Your task to perform on an android device: turn on notifications settings in the gmail app Image 0: 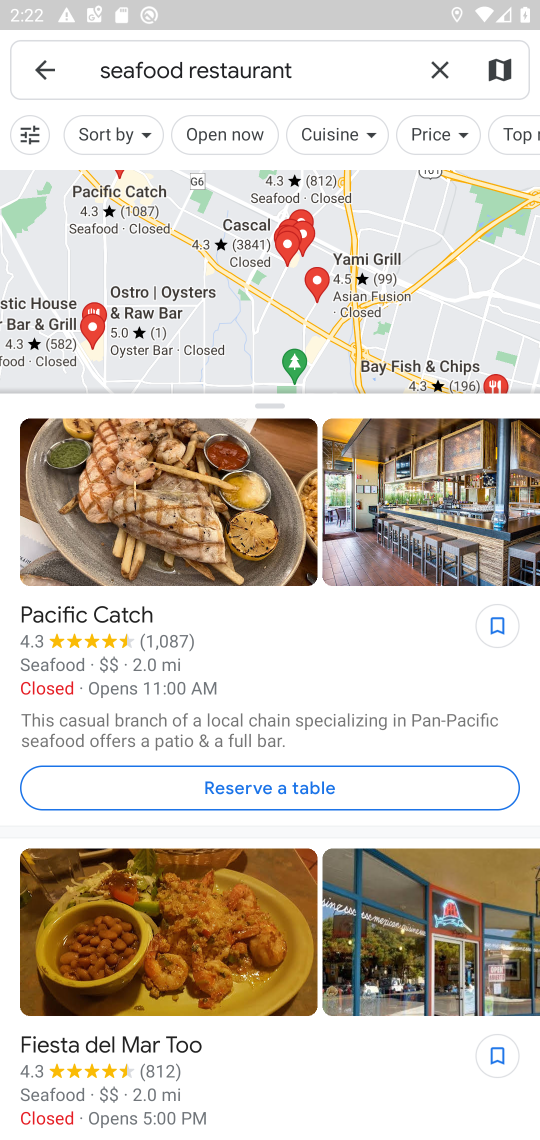
Step 0: press home button
Your task to perform on an android device: turn on notifications settings in the gmail app Image 1: 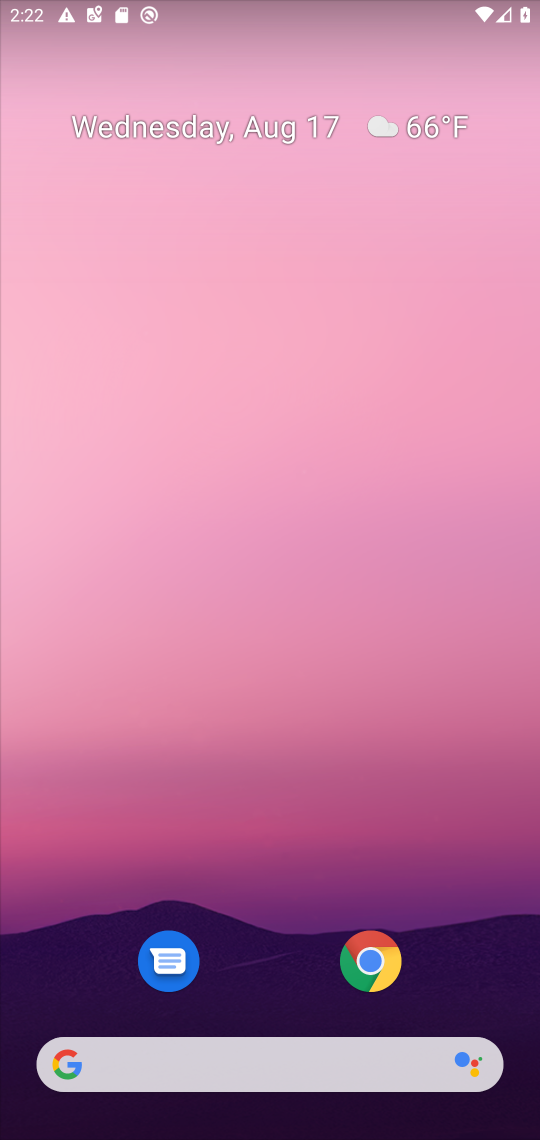
Step 1: drag from (320, 1038) to (357, 249)
Your task to perform on an android device: turn on notifications settings in the gmail app Image 2: 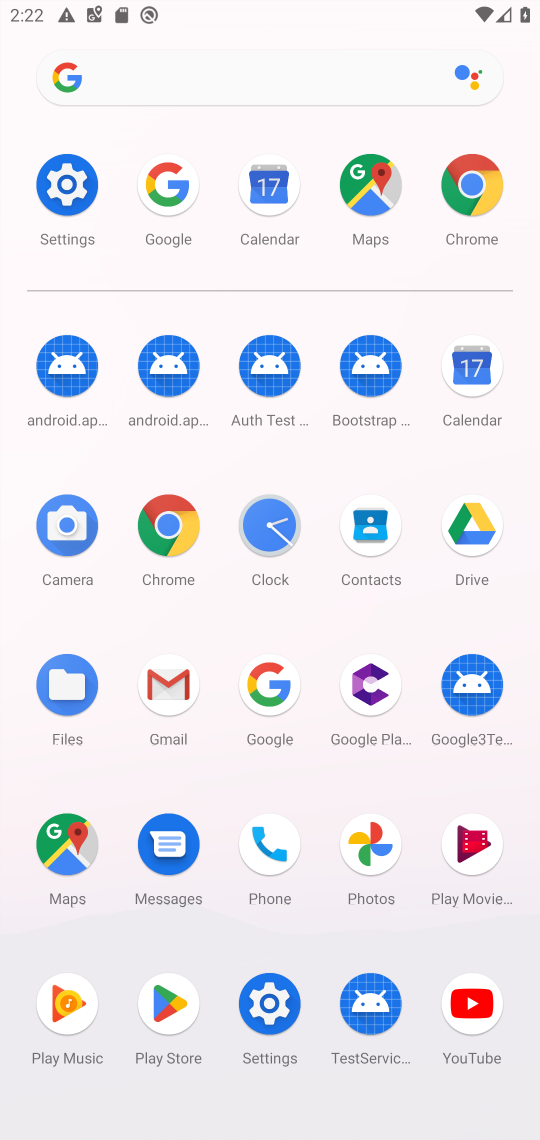
Step 2: click (263, 999)
Your task to perform on an android device: turn on notifications settings in the gmail app Image 3: 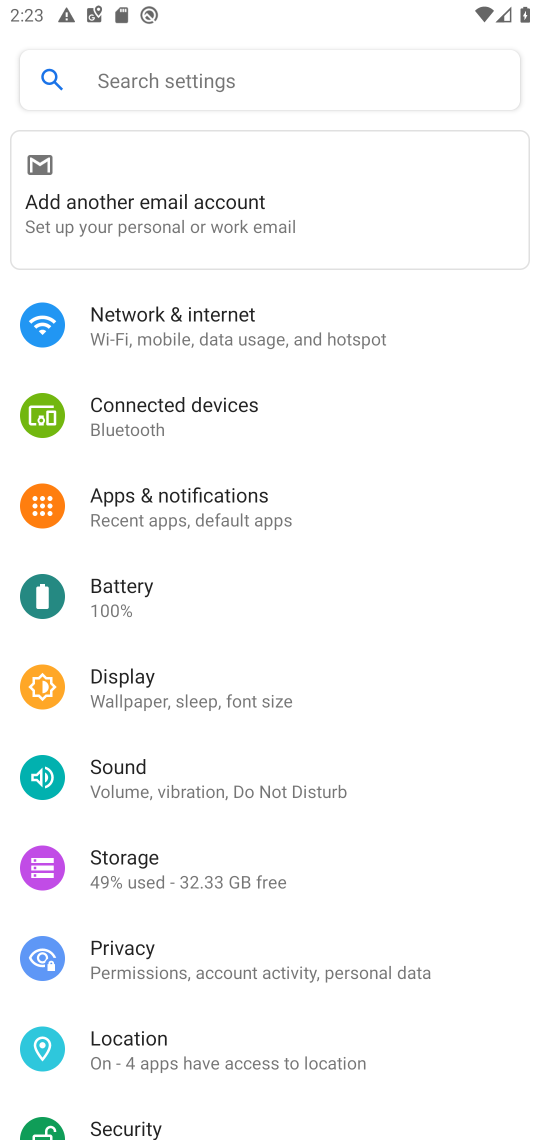
Step 3: click (213, 498)
Your task to perform on an android device: turn on notifications settings in the gmail app Image 4: 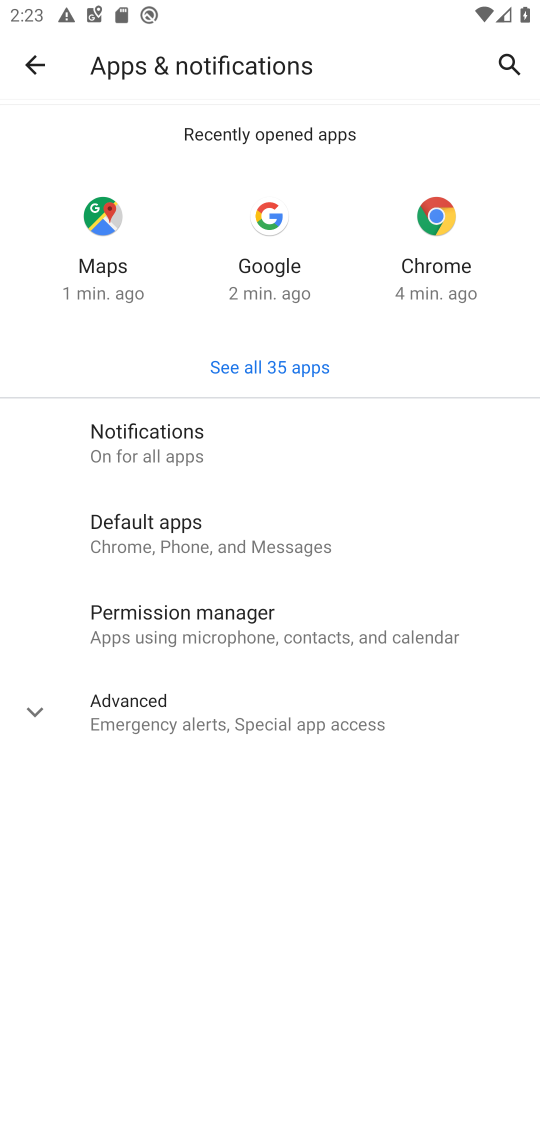
Step 4: click (271, 440)
Your task to perform on an android device: turn on notifications settings in the gmail app Image 5: 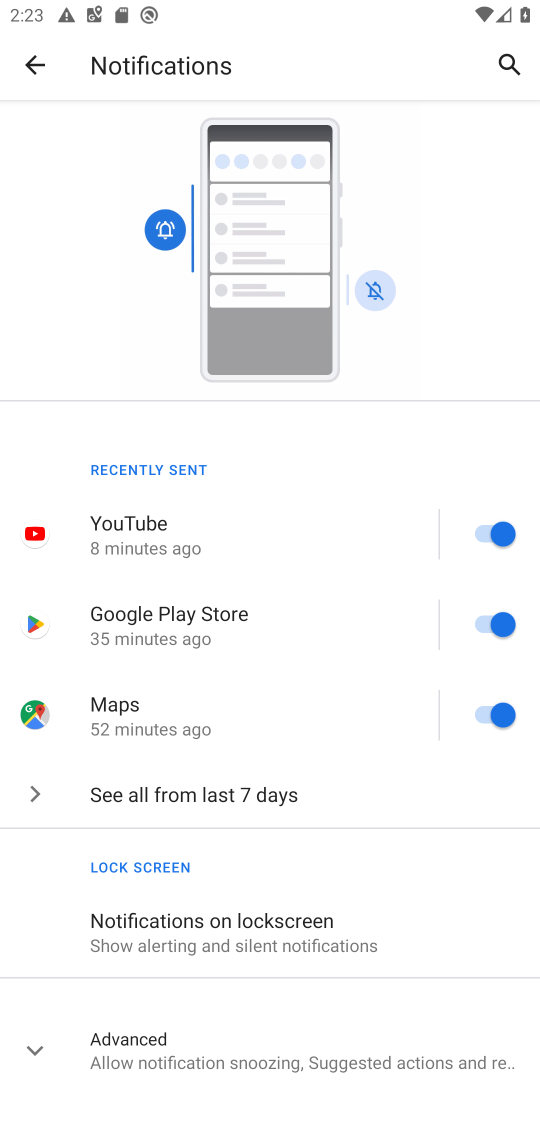
Step 5: click (284, 918)
Your task to perform on an android device: turn on notifications settings in the gmail app Image 6: 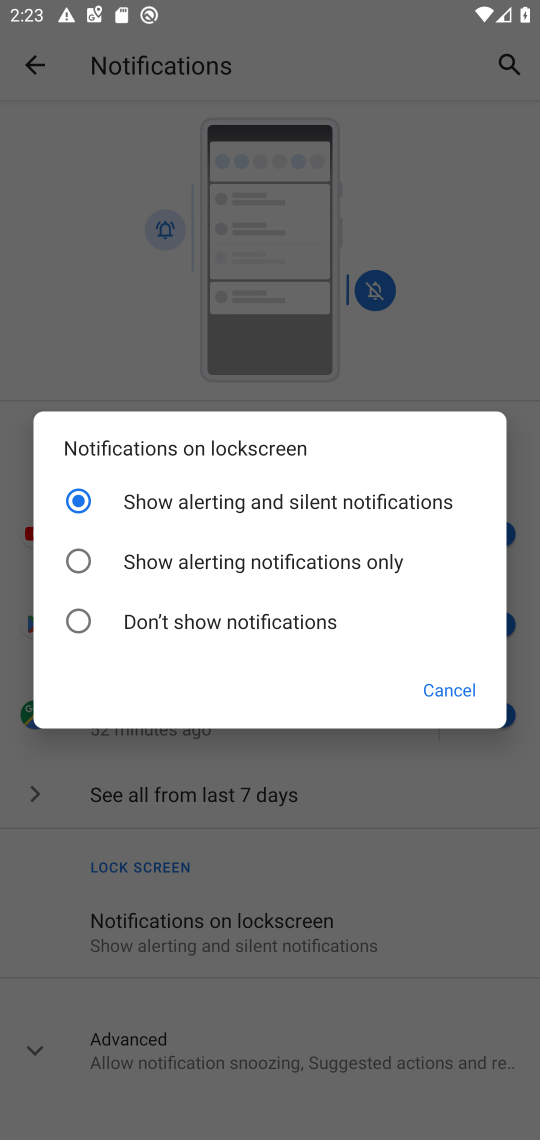
Step 6: task complete